Your task to perform on an android device: change text size in settings app Image 0: 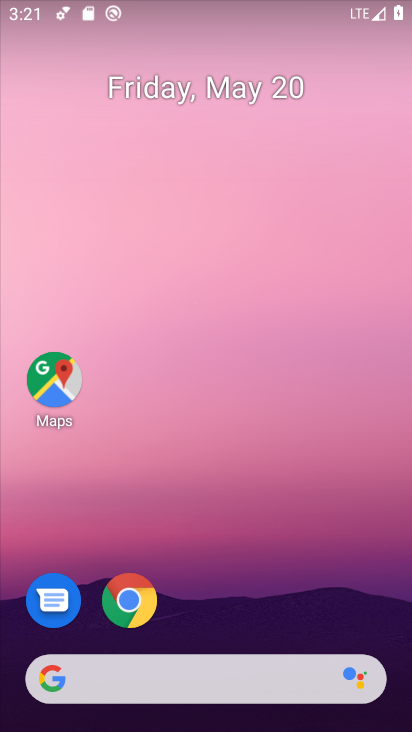
Step 0: drag from (342, 623) to (358, 266)
Your task to perform on an android device: change text size in settings app Image 1: 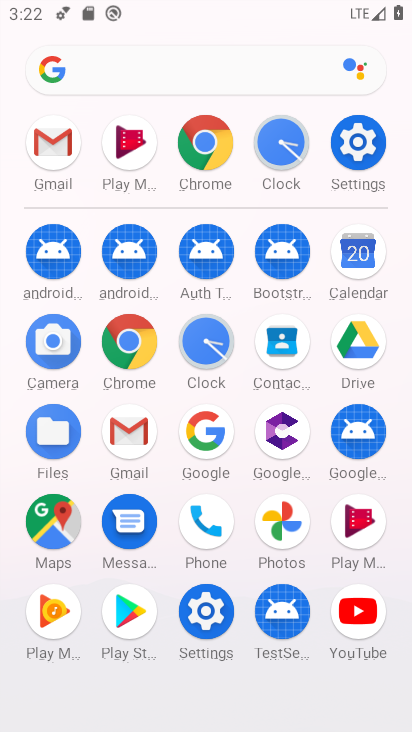
Step 1: click (211, 624)
Your task to perform on an android device: change text size in settings app Image 2: 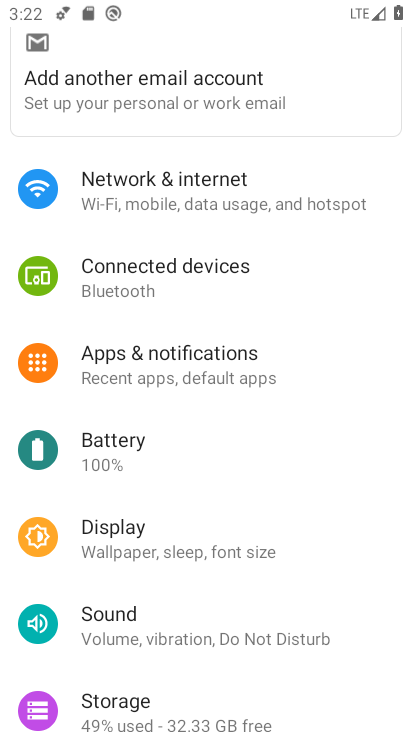
Step 2: drag from (339, 368) to (338, 573)
Your task to perform on an android device: change text size in settings app Image 3: 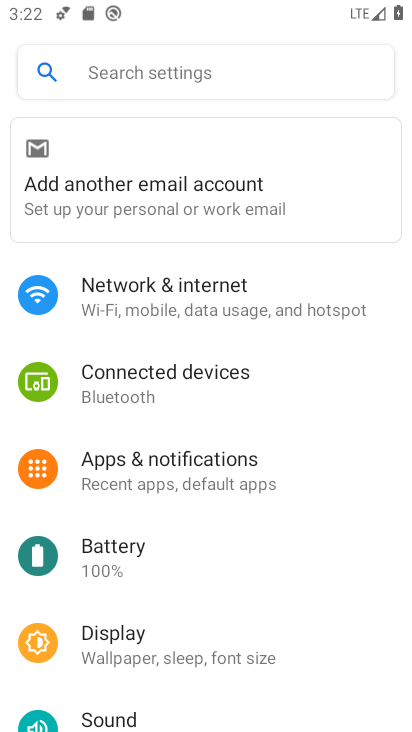
Step 3: drag from (367, 375) to (359, 563)
Your task to perform on an android device: change text size in settings app Image 4: 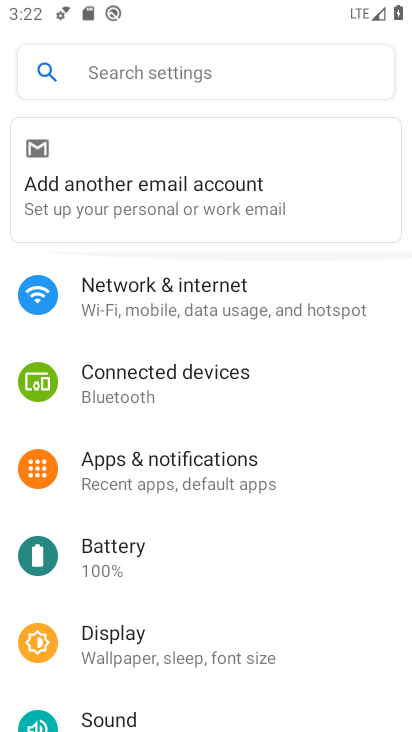
Step 4: drag from (354, 605) to (359, 454)
Your task to perform on an android device: change text size in settings app Image 5: 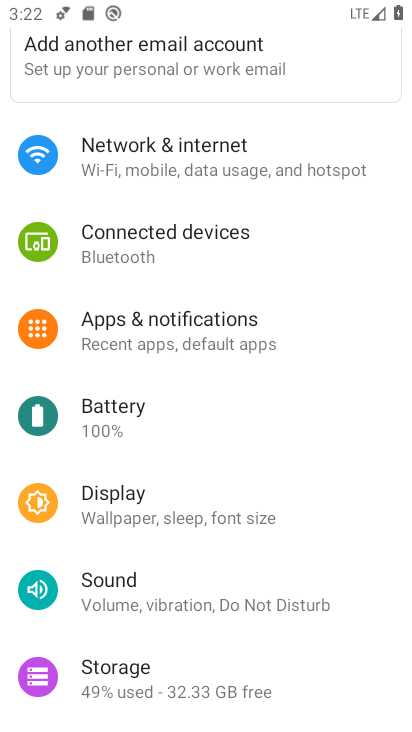
Step 5: drag from (366, 632) to (367, 451)
Your task to perform on an android device: change text size in settings app Image 6: 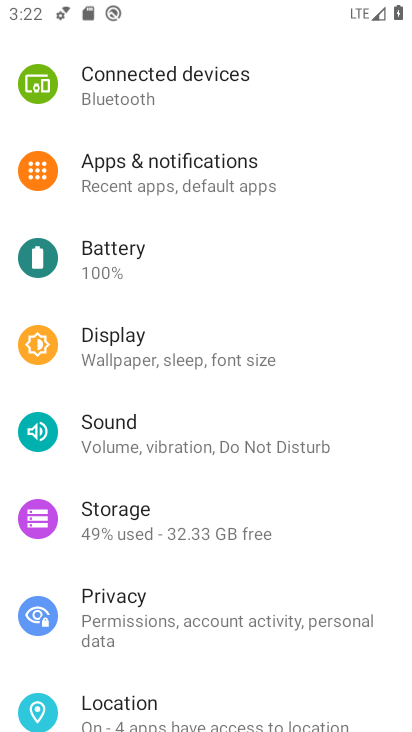
Step 6: drag from (331, 643) to (334, 534)
Your task to perform on an android device: change text size in settings app Image 7: 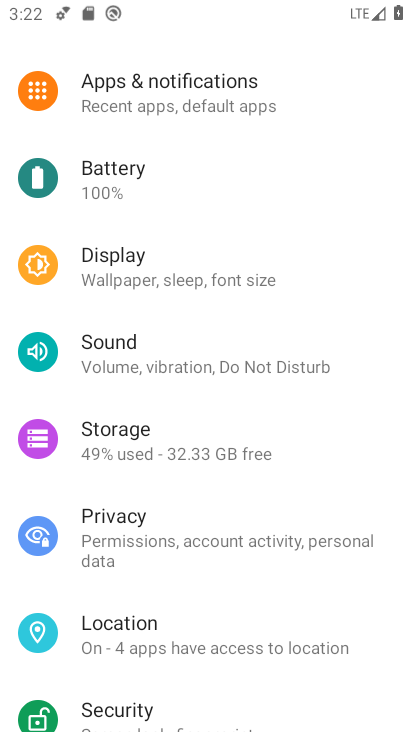
Step 7: drag from (321, 688) to (326, 532)
Your task to perform on an android device: change text size in settings app Image 8: 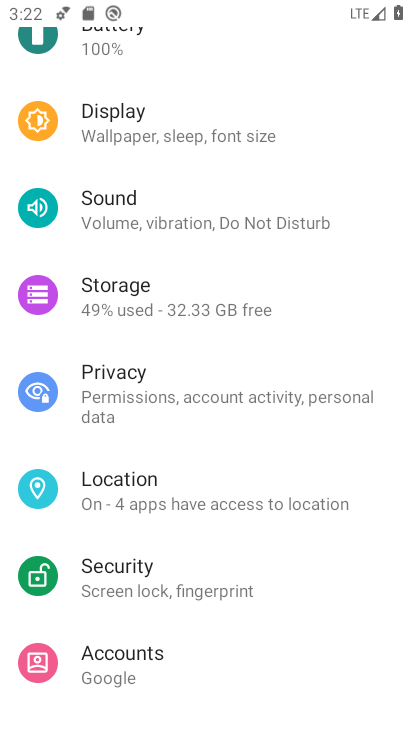
Step 8: drag from (348, 683) to (352, 514)
Your task to perform on an android device: change text size in settings app Image 9: 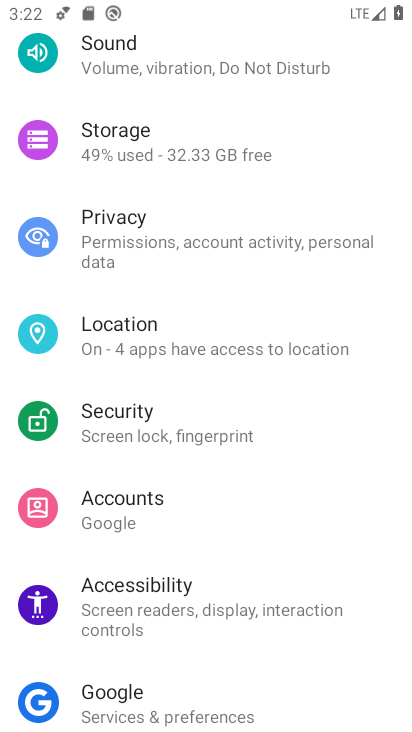
Step 9: drag from (355, 702) to (352, 527)
Your task to perform on an android device: change text size in settings app Image 10: 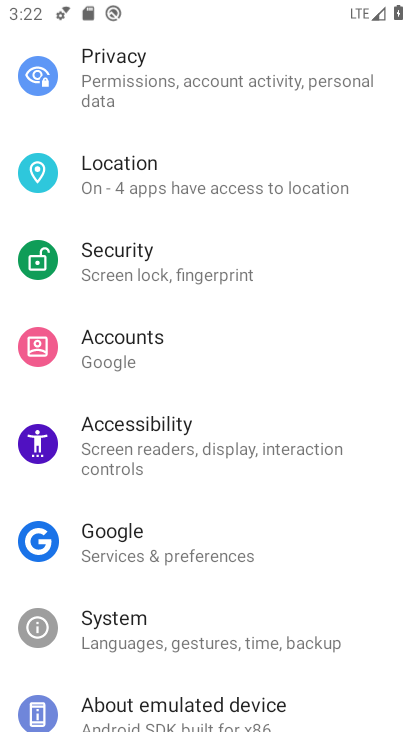
Step 10: drag from (334, 610) to (323, 413)
Your task to perform on an android device: change text size in settings app Image 11: 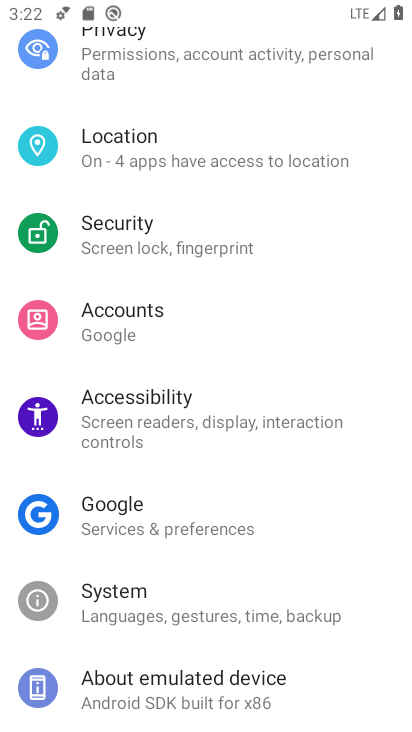
Step 11: drag from (356, 664) to (356, 466)
Your task to perform on an android device: change text size in settings app Image 12: 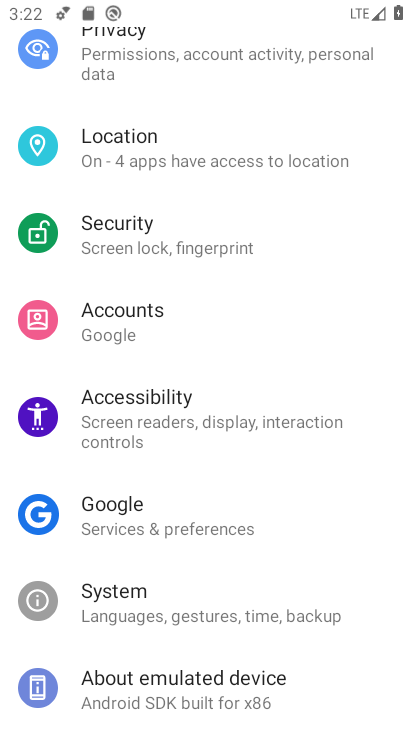
Step 12: drag from (341, 357) to (334, 503)
Your task to perform on an android device: change text size in settings app Image 13: 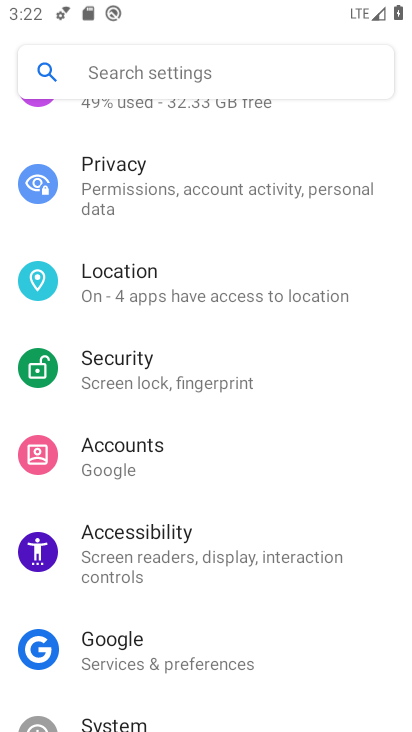
Step 13: drag from (340, 375) to (339, 500)
Your task to perform on an android device: change text size in settings app Image 14: 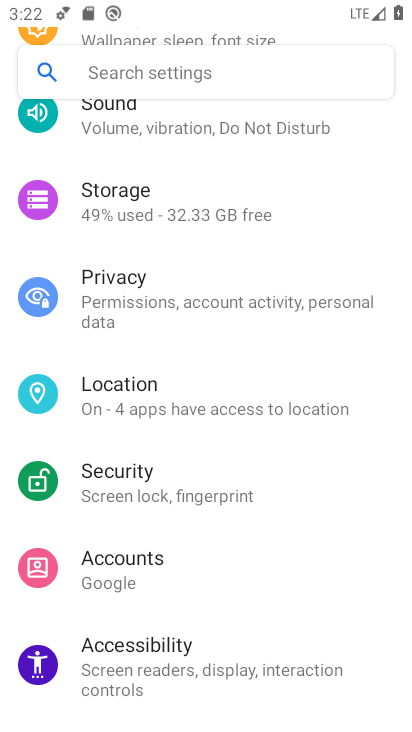
Step 14: drag from (343, 347) to (333, 532)
Your task to perform on an android device: change text size in settings app Image 15: 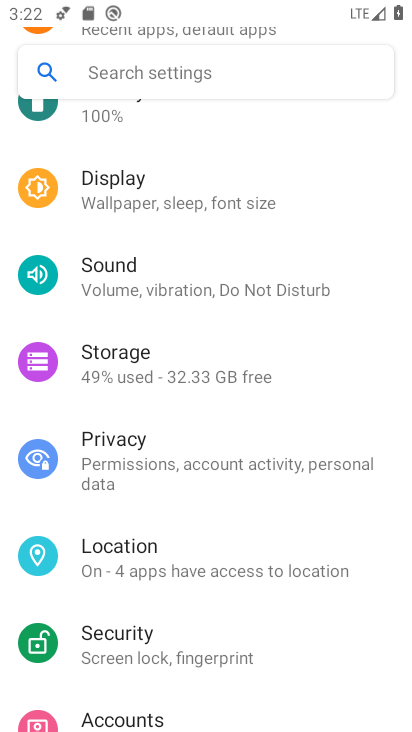
Step 15: drag from (327, 326) to (318, 489)
Your task to perform on an android device: change text size in settings app Image 16: 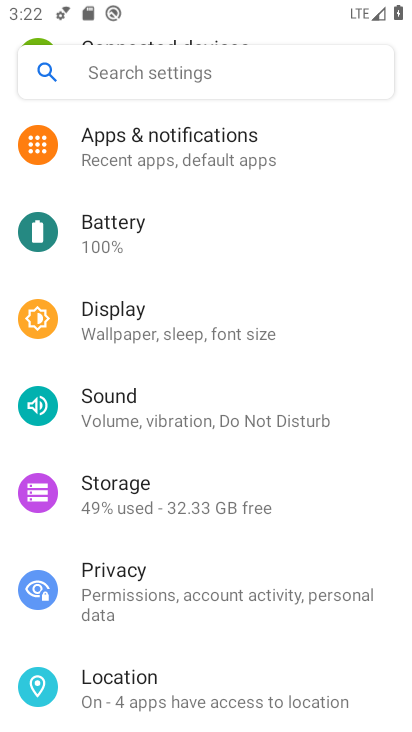
Step 16: drag from (333, 286) to (319, 445)
Your task to perform on an android device: change text size in settings app Image 17: 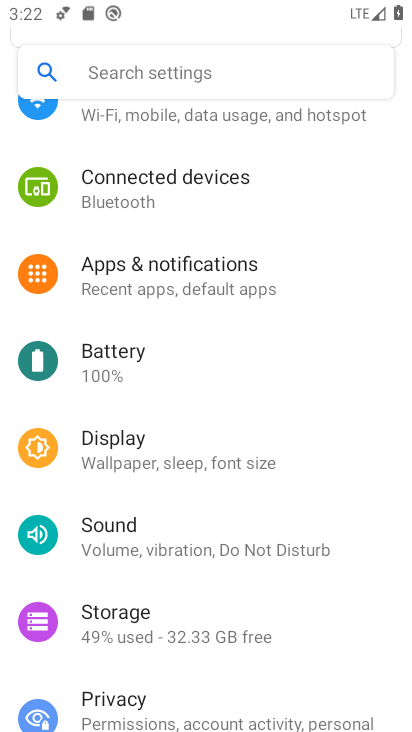
Step 17: drag from (318, 277) to (317, 440)
Your task to perform on an android device: change text size in settings app Image 18: 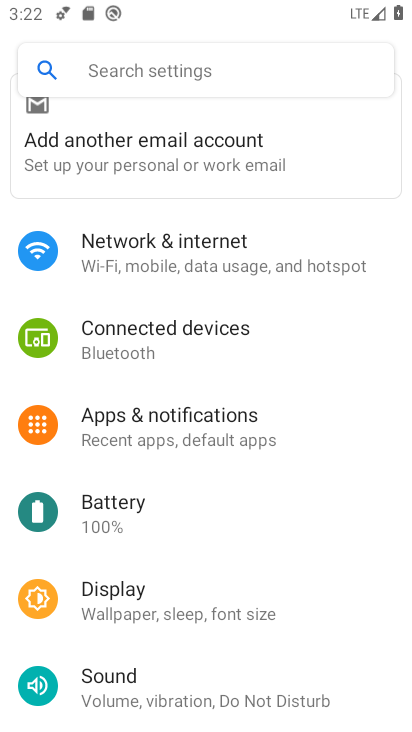
Step 18: drag from (354, 321) to (359, 542)
Your task to perform on an android device: change text size in settings app Image 19: 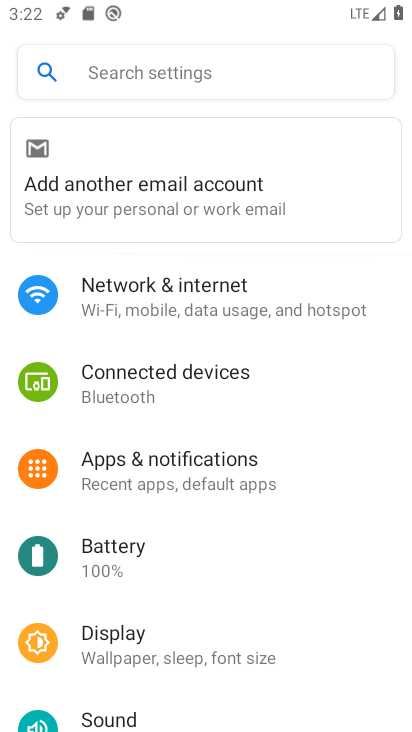
Step 19: drag from (338, 608) to (321, 450)
Your task to perform on an android device: change text size in settings app Image 20: 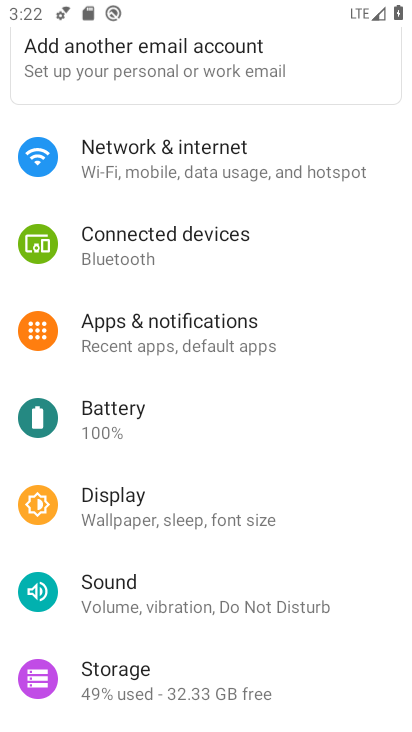
Step 20: drag from (345, 631) to (330, 462)
Your task to perform on an android device: change text size in settings app Image 21: 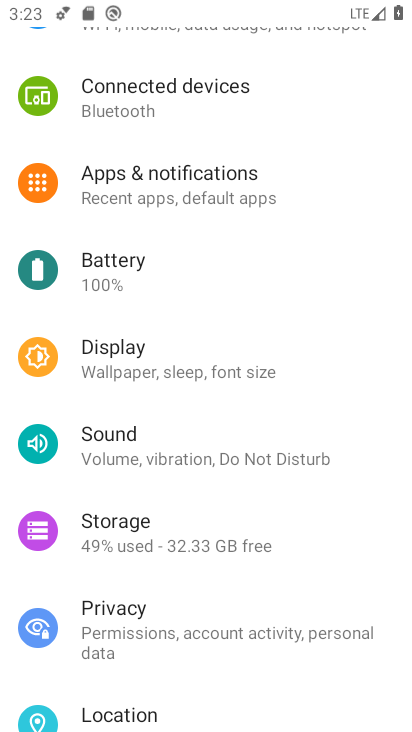
Step 21: drag from (343, 621) to (344, 515)
Your task to perform on an android device: change text size in settings app Image 22: 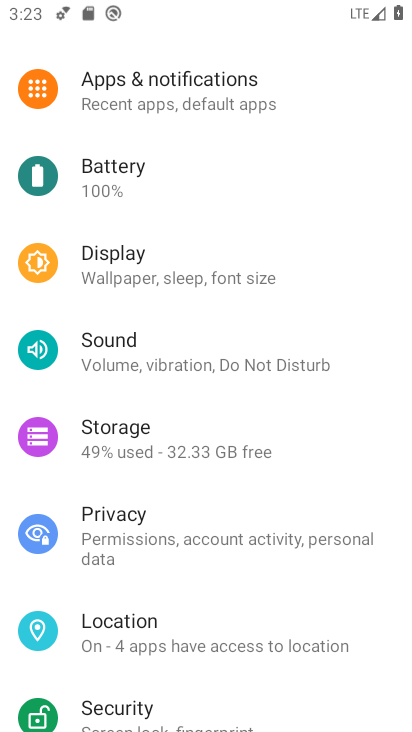
Step 22: click (250, 276)
Your task to perform on an android device: change text size in settings app Image 23: 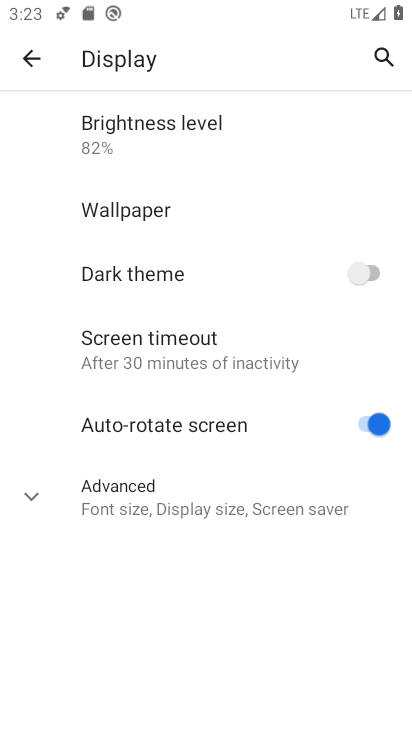
Step 23: click (189, 490)
Your task to perform on an android device: change text size in settings app Image 24: 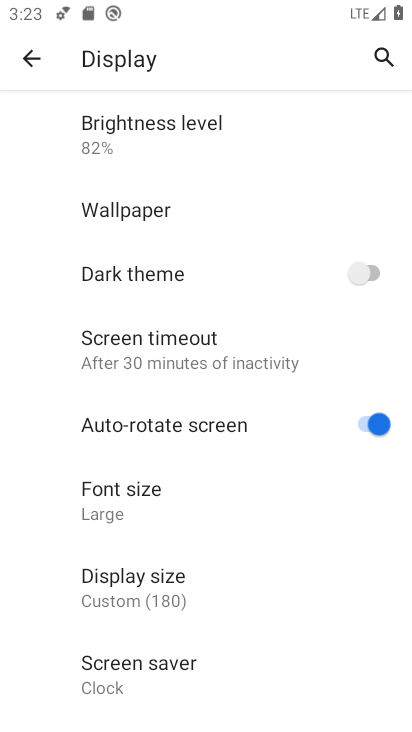
Step 24: click (117, 527)
Your task to perform on an android device: change text size in settings app Image 25: 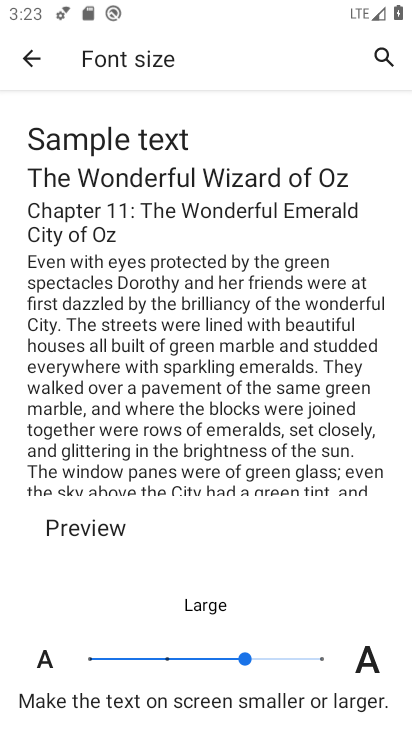
Step 25: click (172, 659)
Your task to perform on an android device: change text size in settings app Image 26: 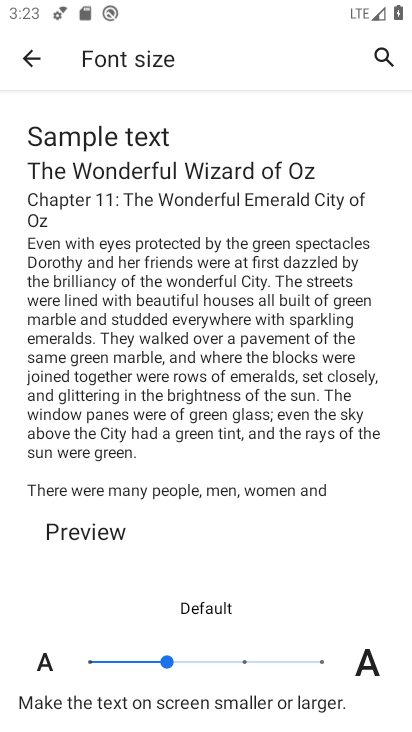
Step 26: task complete